Your task to perform on an android device: star an email in the gmail app Image 0: 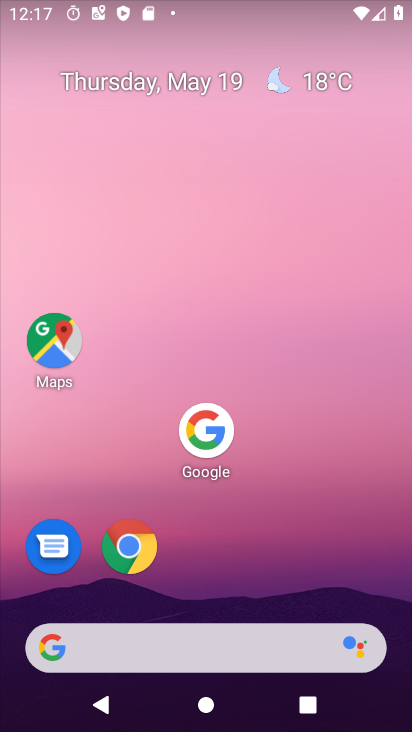
Step 0: drag from (283, 532) to (263, 72)
Your task to perform on an android device: star an email in the gmail app Image 1: 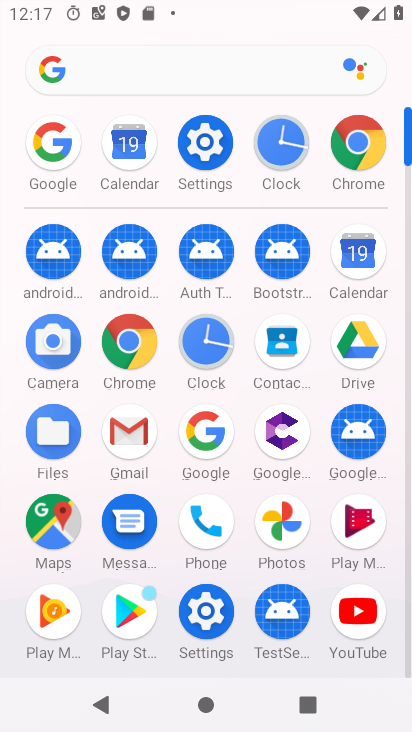
Step 1: click (133, 439)
Your task to perform on an android device: star an email in the gmail app Image 2: 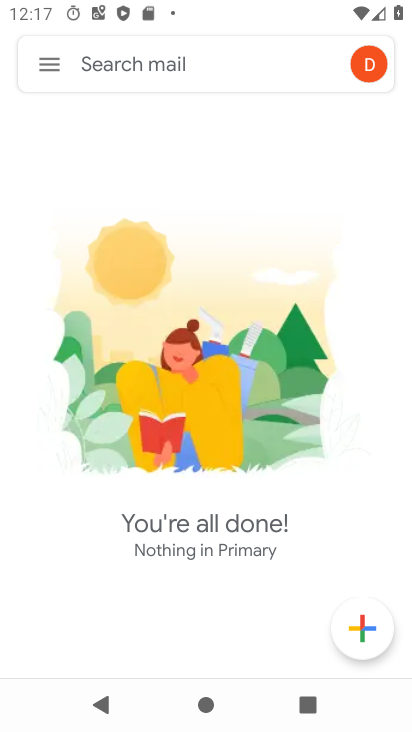
Step 2: click (49, 73)
Your task to perform on an android device: star an email in the gmail app Image 3: 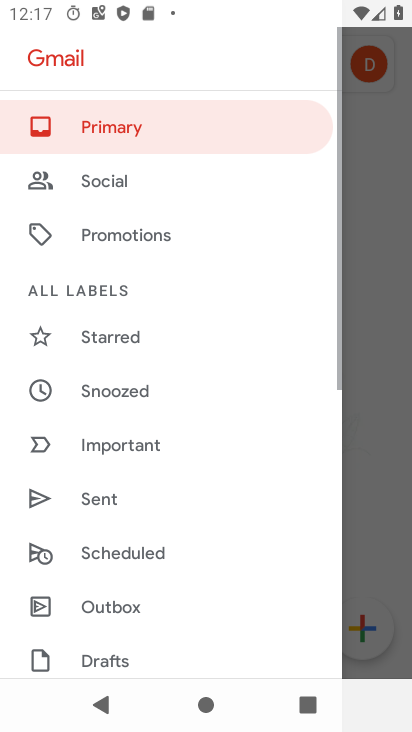
Step 3: drag from (169, 522) to (161, 209)
Your task to perform on an android device: star an email in the gmail app Image 4: 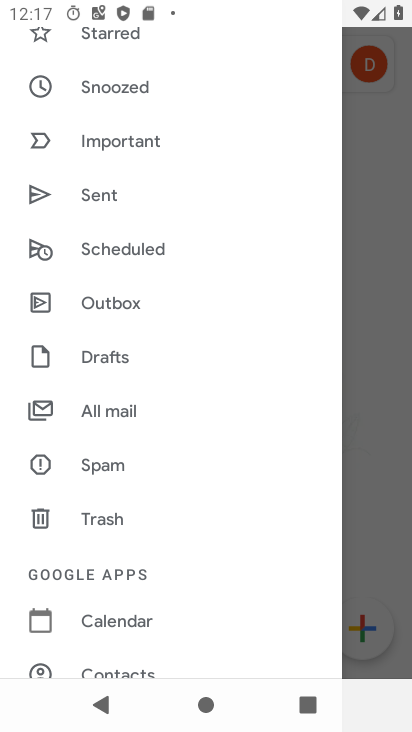
Step 4: click (119, 403)
Your task to perform on an android device: star an email in the gmail app Image 5: 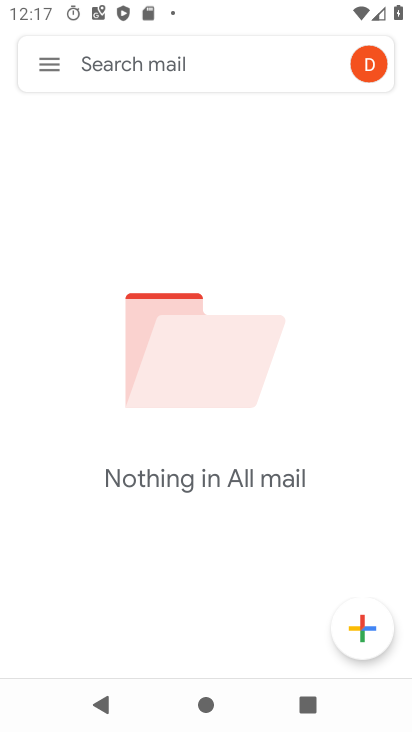
Step 5: task complete